Your task to perform on an android device: Open the stopwatch Image 0: 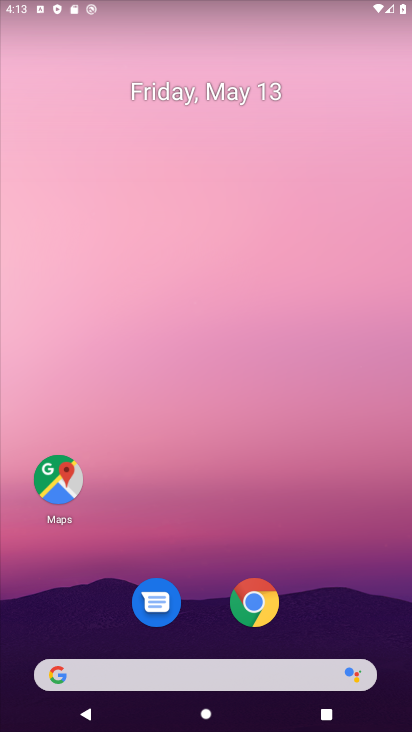
Step 0: drag from (182, 658) to (236, 262)
Your task to perform on an android device: Open the stopwatch Image 1: 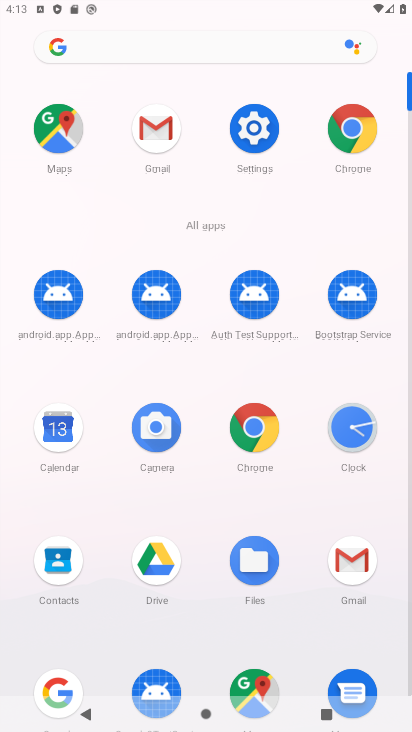
Step 1: click (342, 427)
Your task to perform on an android device: Open the stopwatch Image 2: 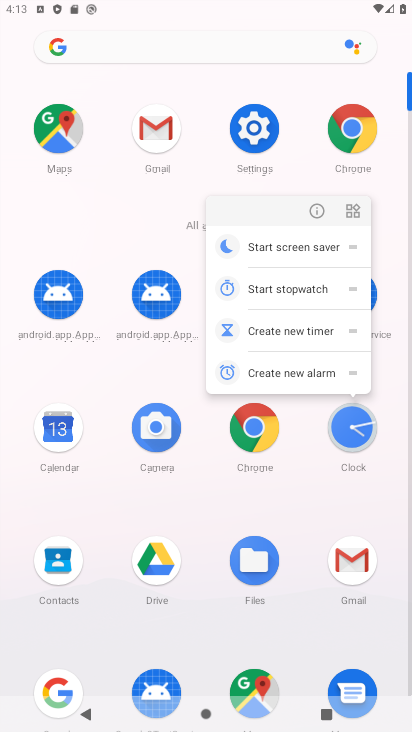
Step 2: click (343, 440)
Your task to perform on an android device: Open the stopwatch Image 3: 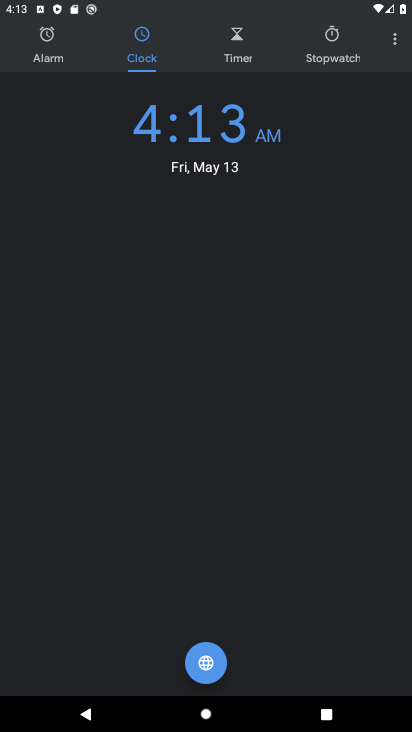
Step 3: click (330, 49)
Your task to perform on an android device: Open the stopwatch Image 4: 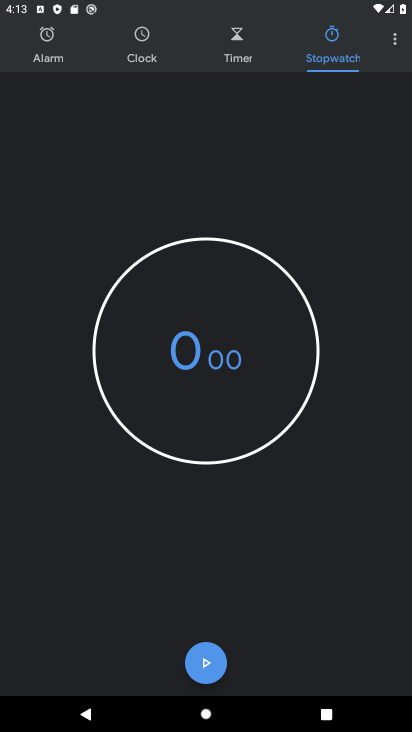
Step 4: task complete